Your task to perform on an android device: add a contact in the contacts app Image 0: 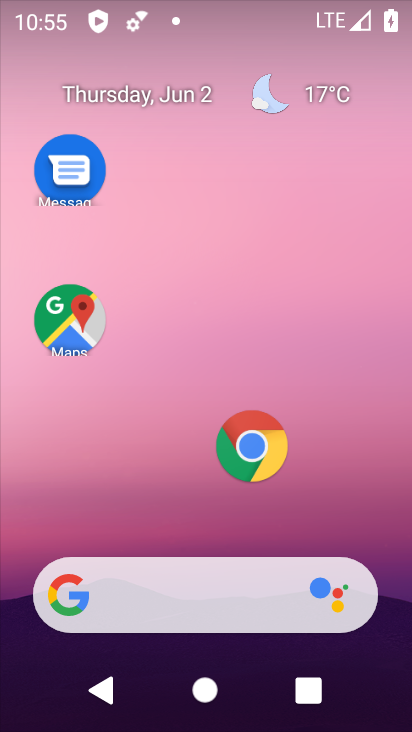
Step 0: drag from (280, 527) to (269, 124)
Your task to perform on an android device: add a contact in the contacts app Image 1: 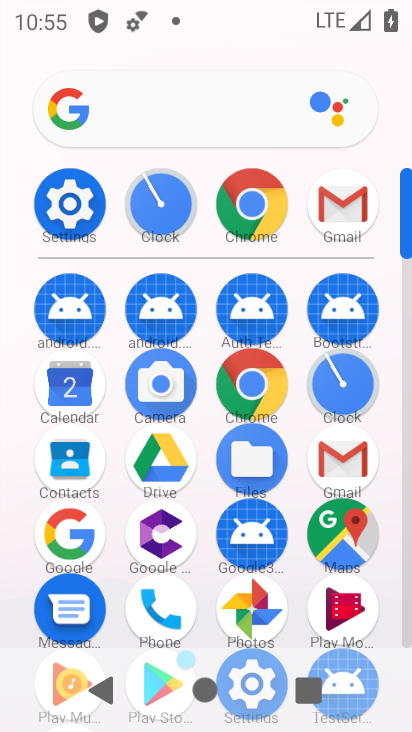
Step 1: click (77, 479)
Your task to perform on an android device: add a contact in the contacts app Image 2: 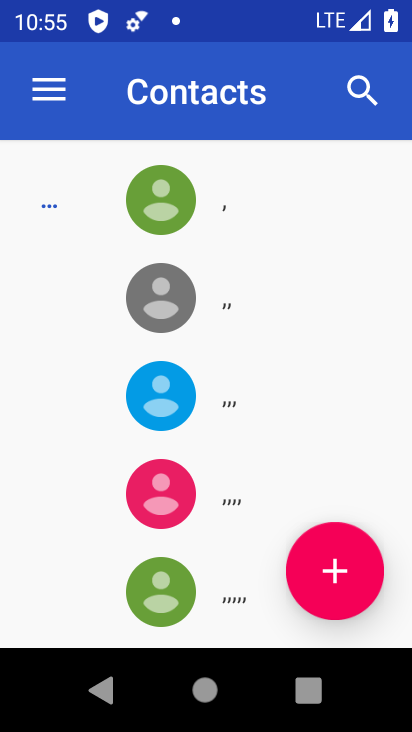
Step 2: click (304, 564)
Your task to perform on an android device: add a contact in the contacts app Image 3: 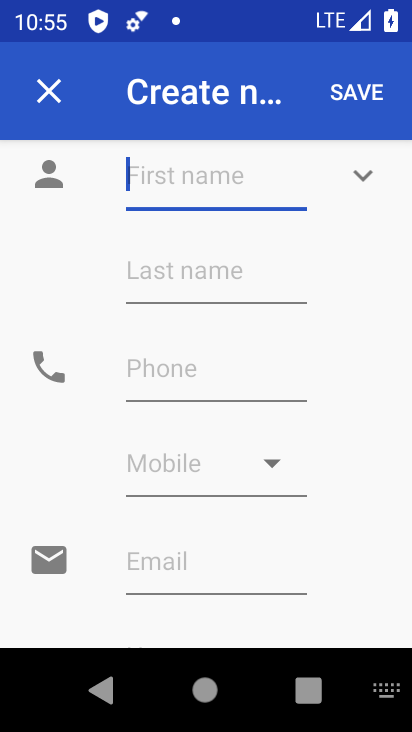
Step 3: type "sdfghjkl;"
Your task to perform on an android device: add a contact in the contacts app Image 4: 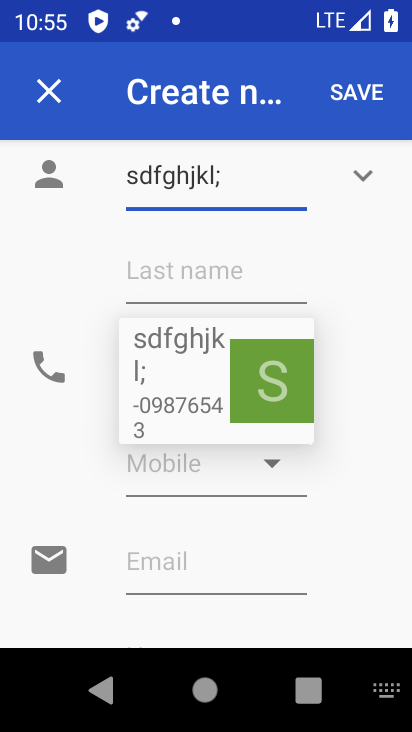
Step 4: click (382, 350)
Your task to perform on an android device: add a contact in the contacts app Image 5: 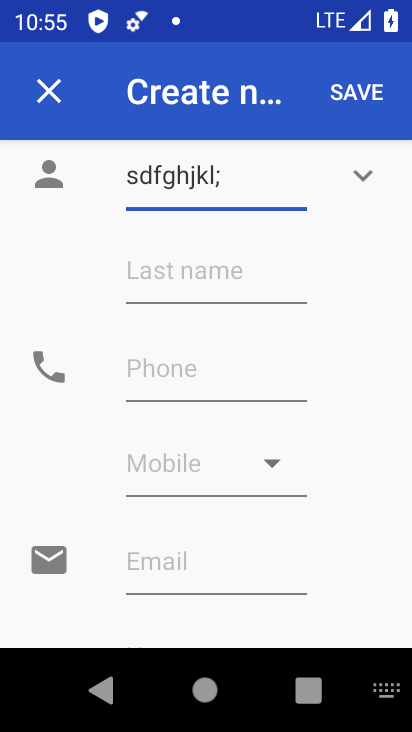
Step 5: click (188, 381)
Your task to perform on an android device: add a contact in the contacts app Image 6: 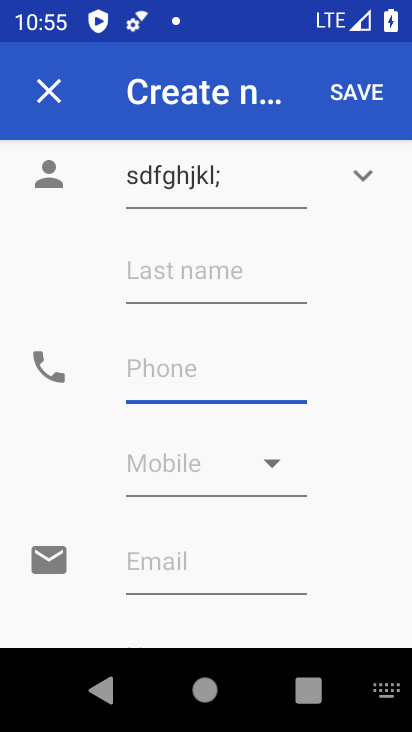
Step 6: type "234567890-"
Your task to perform on an android device: add a contact in the contacts app Image 7: 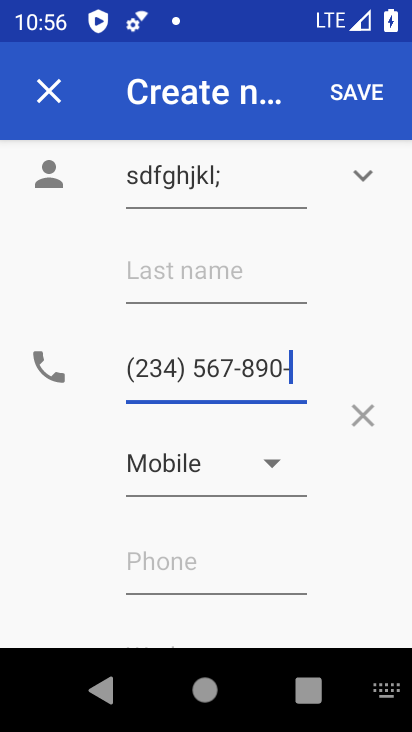
Step 7: click (384, 81)
Your task to perform on an android device: add a contact in the contacts app Image 8: 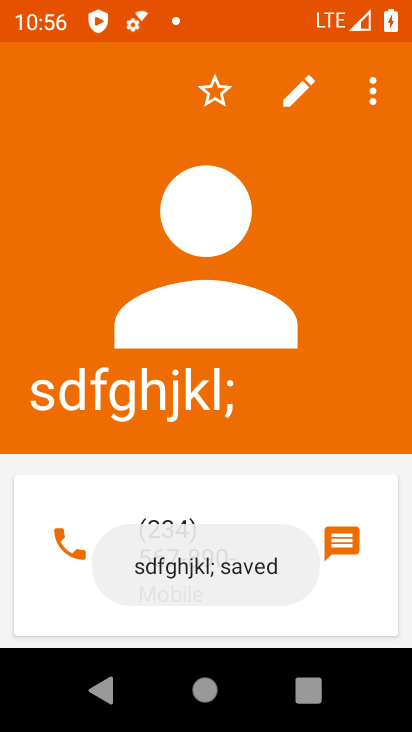
Step 8: task complete